Your task to perform on an android device: turn off location Image 0: 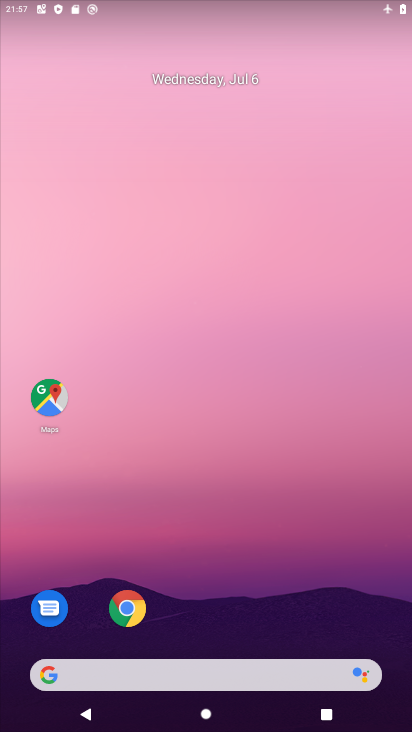
Step 0: drag from (212, 429) to (200, 113)
Your task to perform on an android device: turn off location Image 1: 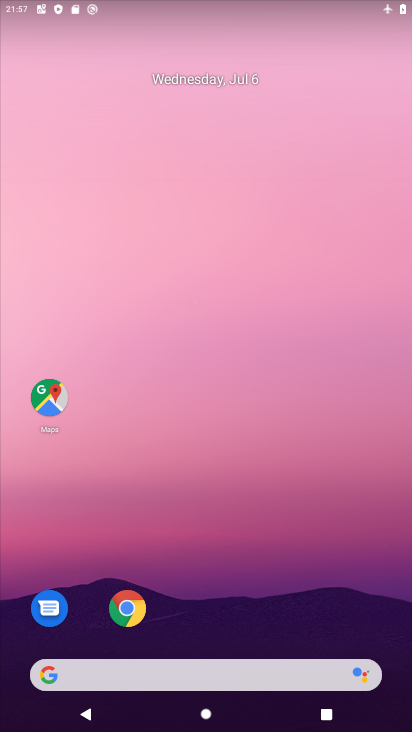
Step 1: drag from (209, 522) to (251, 0)
Your task to perform on an android device: turn off location Image 2: 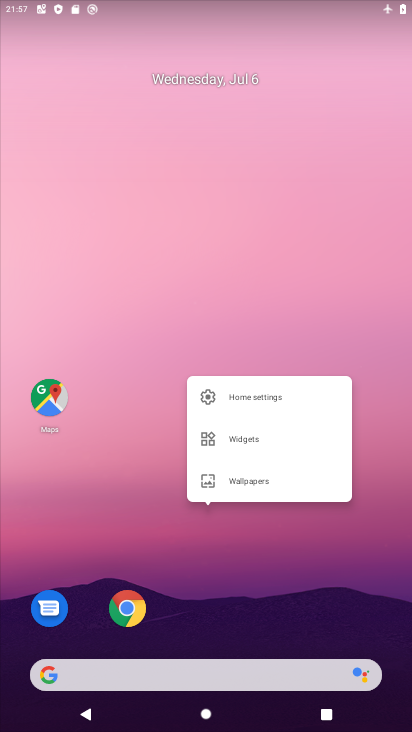
Step 2: click (120, 324)
Your task to perform on an android device: turn off location Image 3: 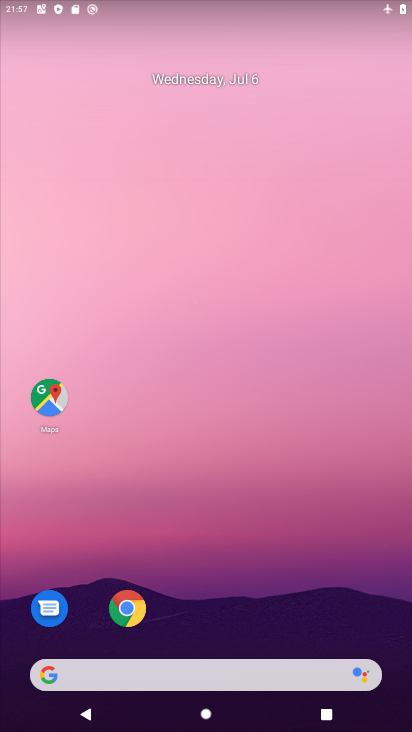
Step 3: drag from (221, 611) to (154, 123)
Your task to perform on an android device: turn off location Image 4: 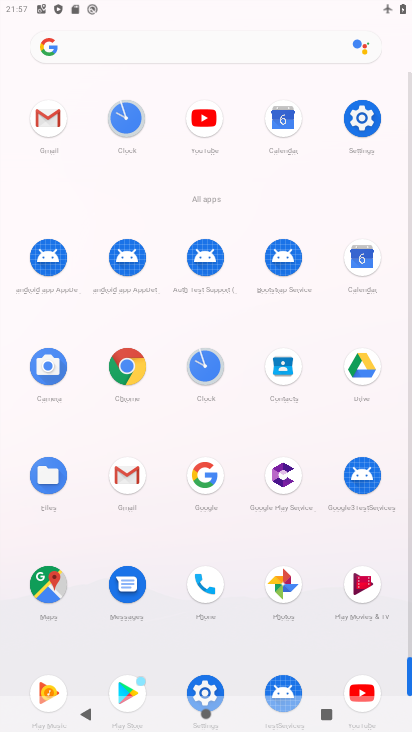
Step 4: click (367, 117)
Your task to perform on an android device: turn off location Image 5: 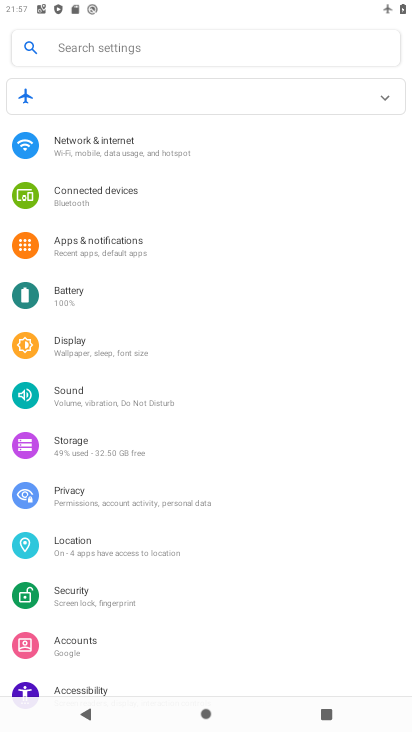
Step 5: click (71, 542)
Your task to perform on an android device: turn off location Image 6: 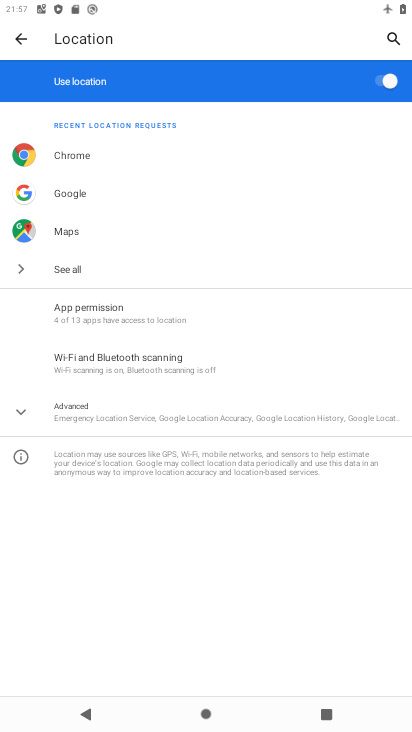
Step 6: click (381, 82)
Your task to perform on an android device: turn off location Image 7: 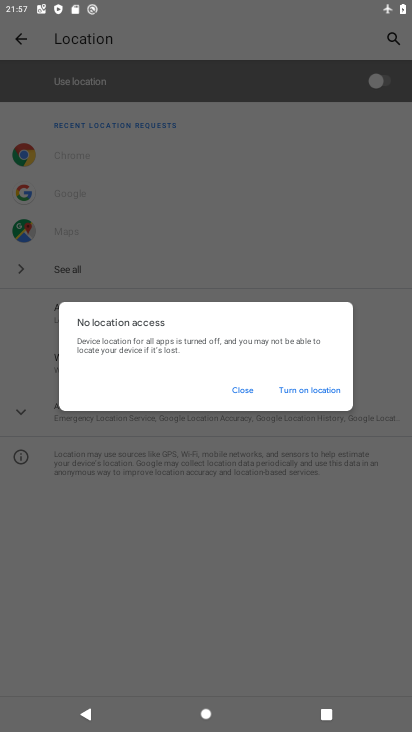
Step 7: click (243, 391)
Your task to perform on an android device: turn off location Image 8: 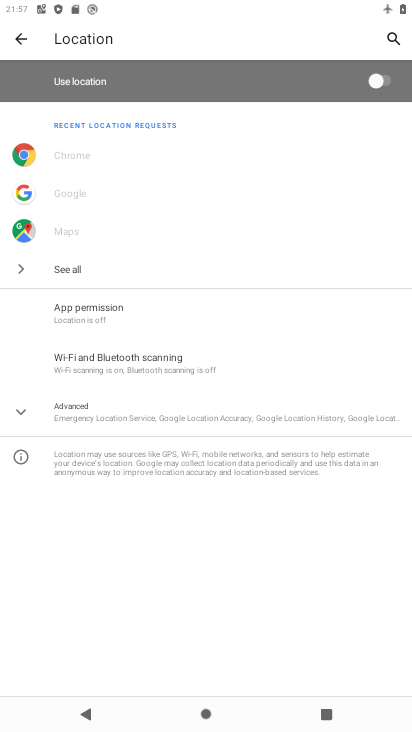
Step 8: task complete